Your task to perform on an android device: Open CNN.com Image 0: 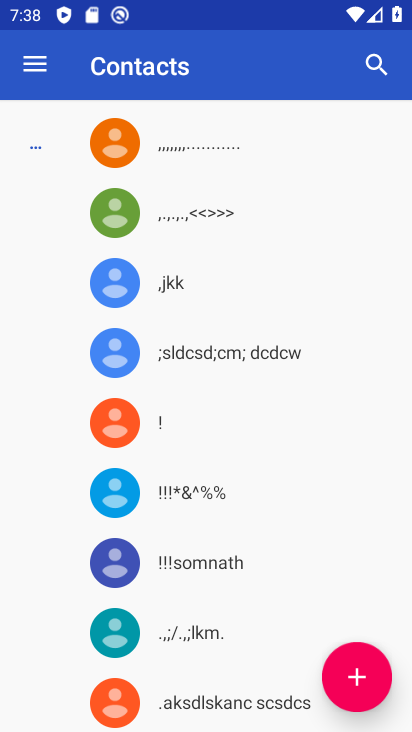
Step 0: press home button
Your task to perform on an android device: Open CNN.com Image 1: 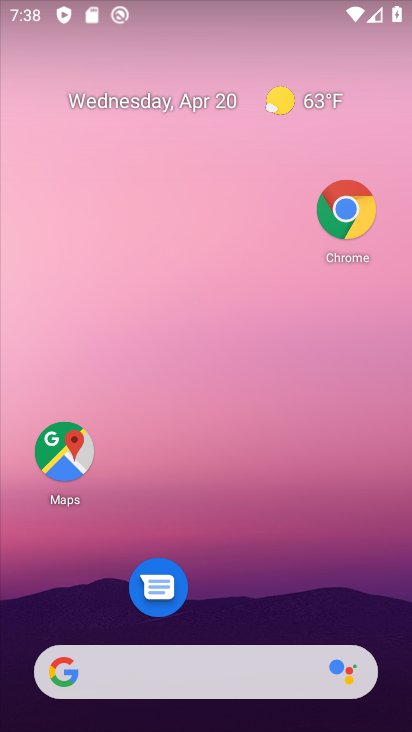
Step 1: click (166, 671)
Your task to perform on an android device: Open CNN.com Image 2: 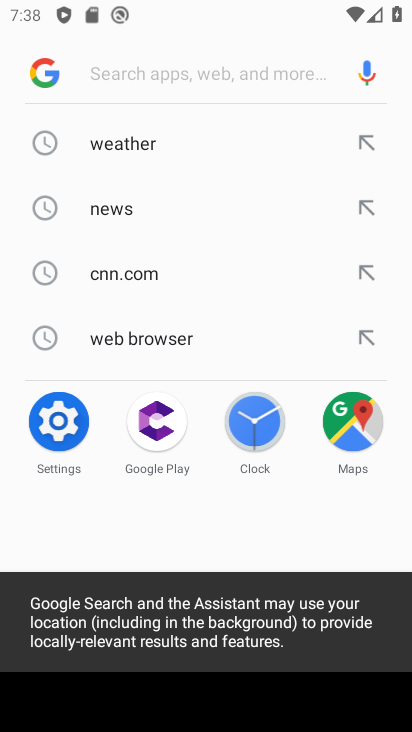
Step 2: click (232, 257)
Your task to perform on an android device: Open CNN.com Image 3: 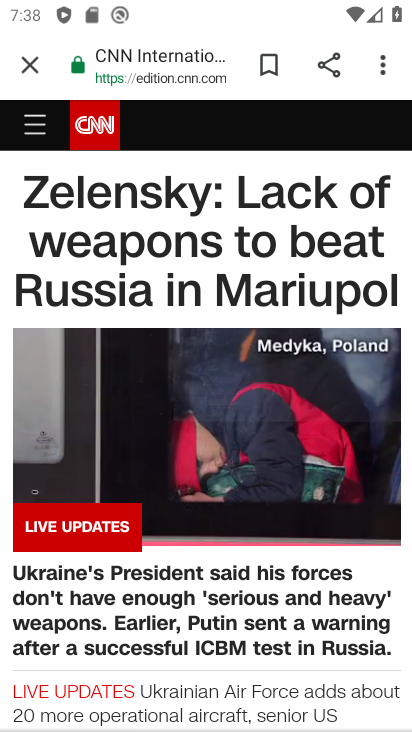
Step 3: task complete